Your task to perform on an android device: set the timer Image 0: 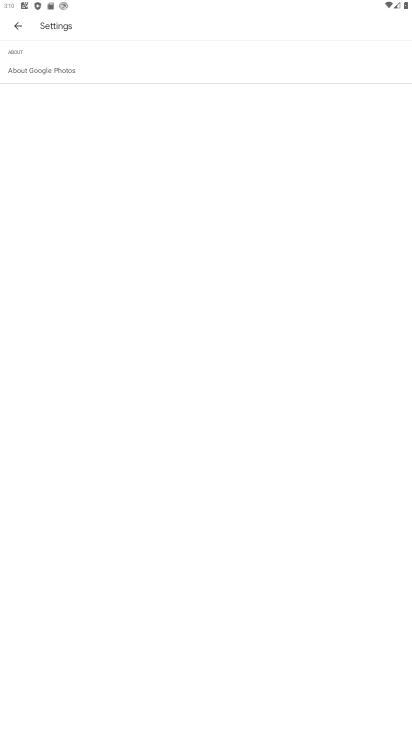
Step 0: press home button
Your task to perform on an android device: set the timer Image 1: 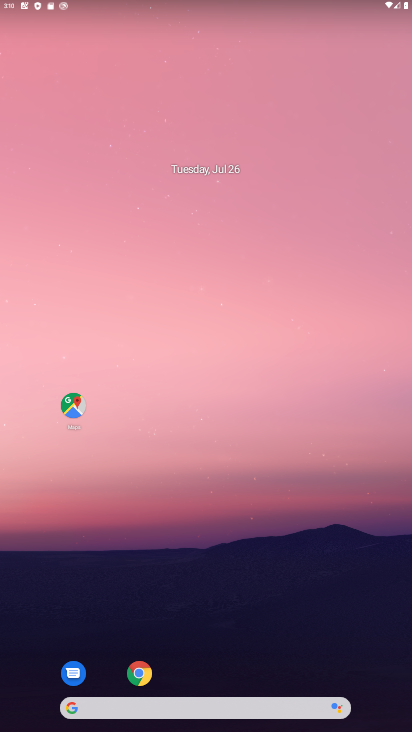
Step 1: drag from (187, 707) to (172, 44)
Your task to perform on an android device: set the timer Image 2: 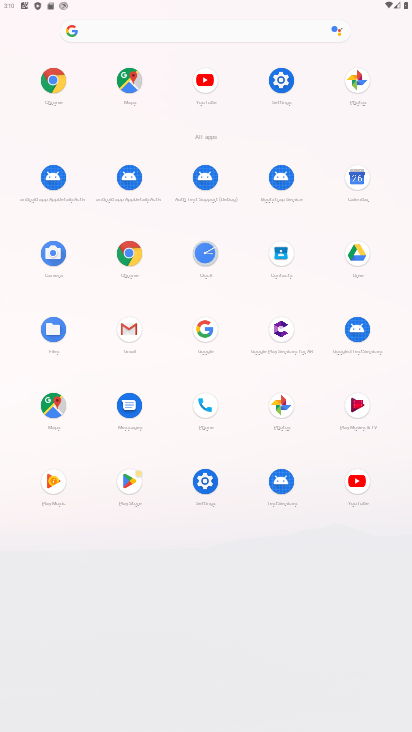
Step 2: click (204, 253)
Your task to perform on an android device: set the timer Image 3: 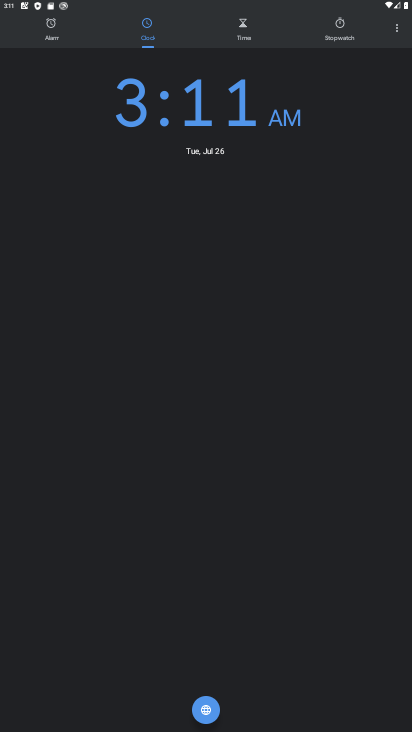
Step 3: click (241, 22)
Your task to perform on an android device: set the timer Image 4: 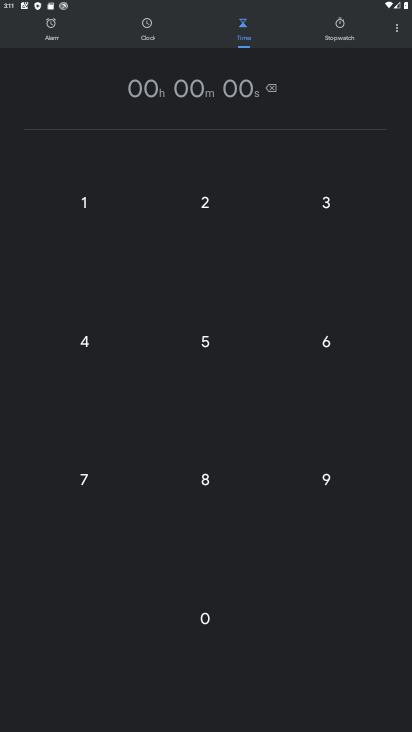
Step 4: type "135"
Your task to perform on an android device: set the timer Image 5: 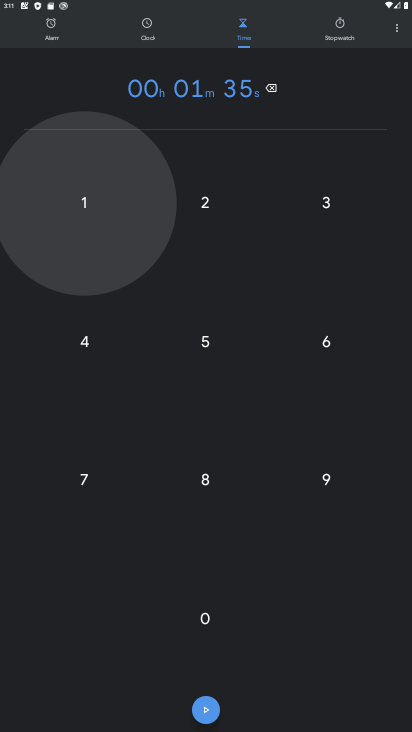
Step 5: click (205, 709)
Your task to perform on an android device: set the timer Image 6: 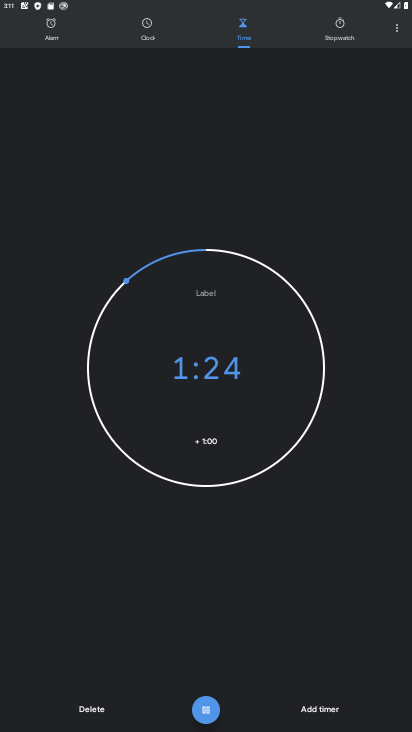
Step 6: click (208, 712)
Your task to perform on an android device: set the timer Image 7: 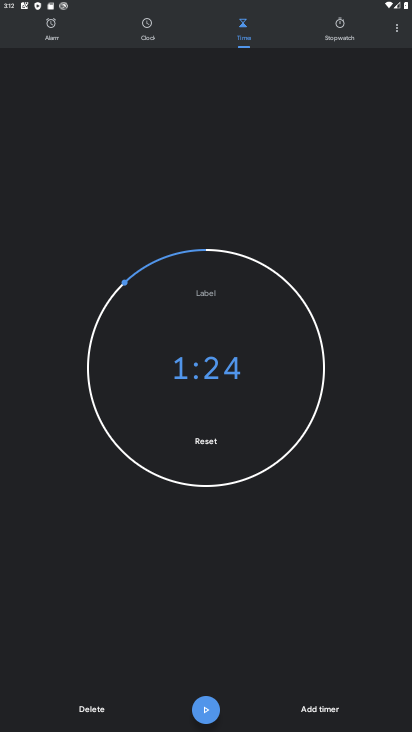
Step 7: task complete